Your task to perform on an android device: Search for "duracell triple a" on costco.com, select the first entry, add it to the cart, then select checkout. Image 0: 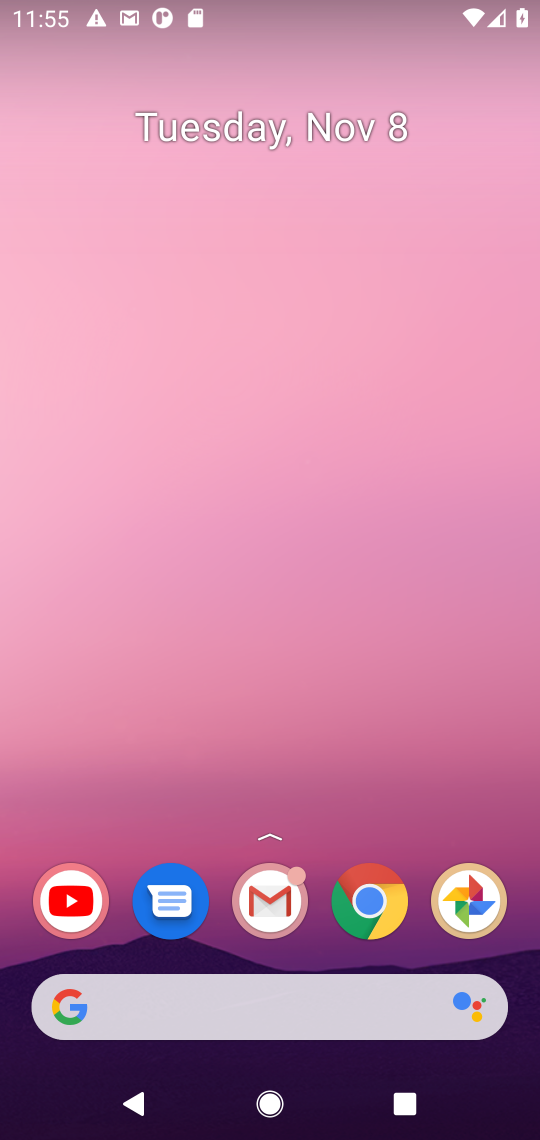
Step 0: click (358, 895)
Your task to perform on an android device: Search for "duracell triple a" on costco.com, select the first entry, add it to the cart, then select checkout. Image 1: 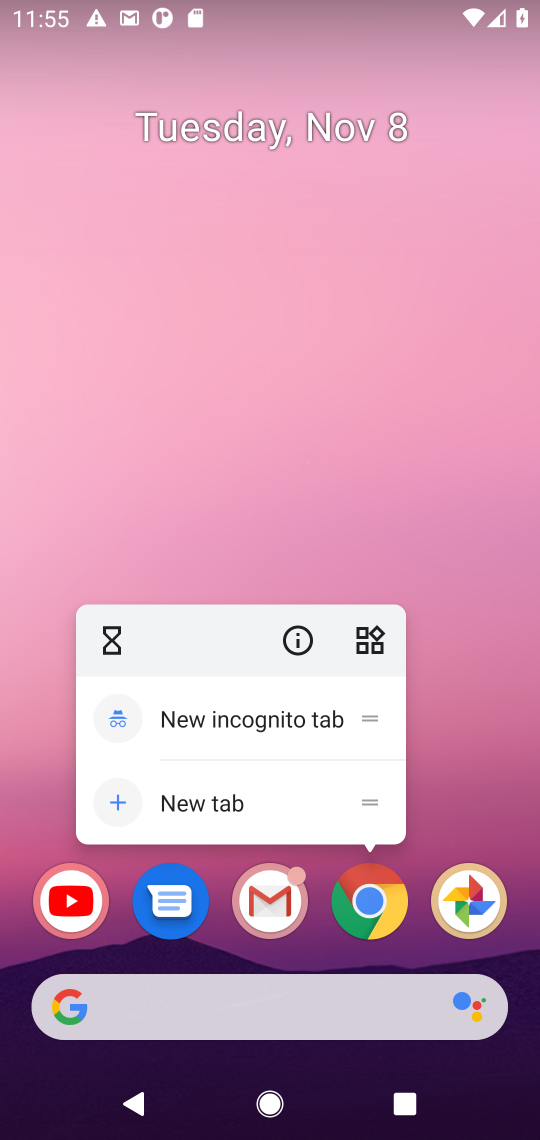
Step 1: click (377, 895)
Your task to perform on an android device: Search for "duracell triple a" on costco.com, select the first entry, add it to the cart, then select checkout. Image 2: 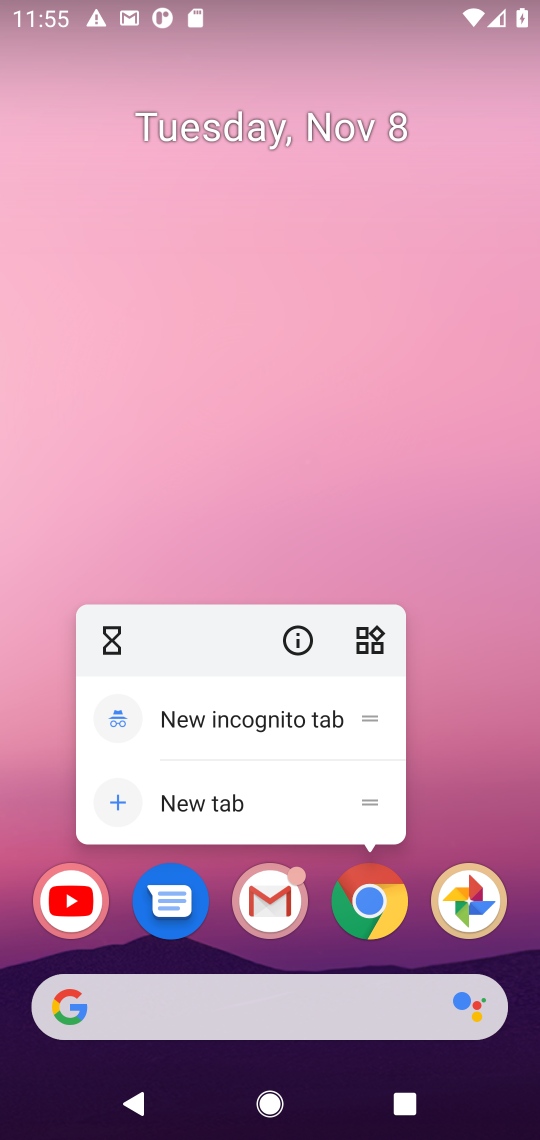
Step 2: click (377, 895)
Your task to perform on an android device: Search for "duracell triple a" on costco.com, select the first entry, add it to the cart, then select checkout. Image 3: 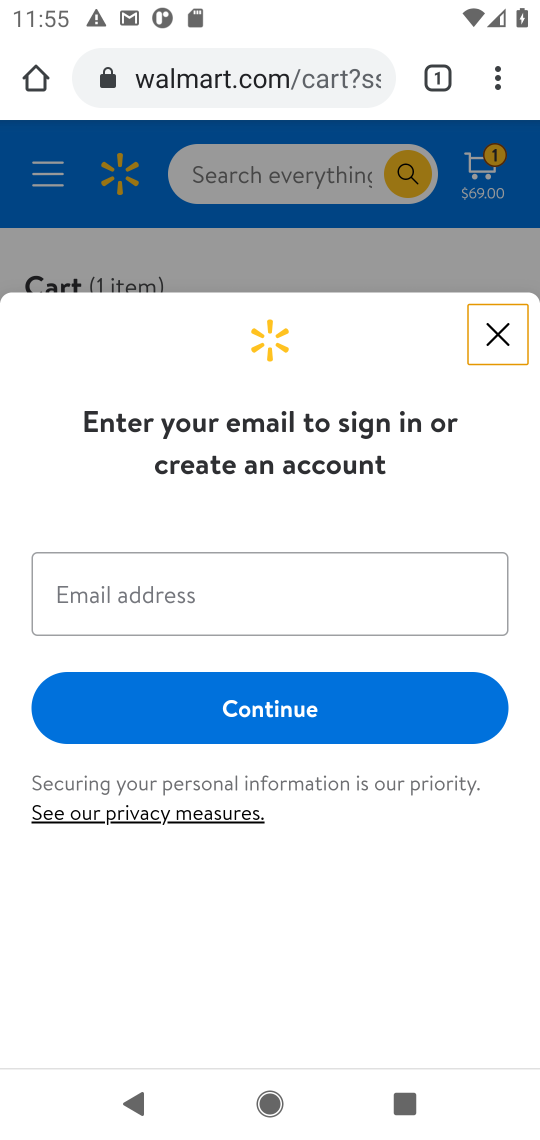
Step 3: click (326, 69)
Your task to perform on an android device: Search for "duracell triple a" on costco.com, select the first entry, add it to the cart, then select checkout. Image 4: 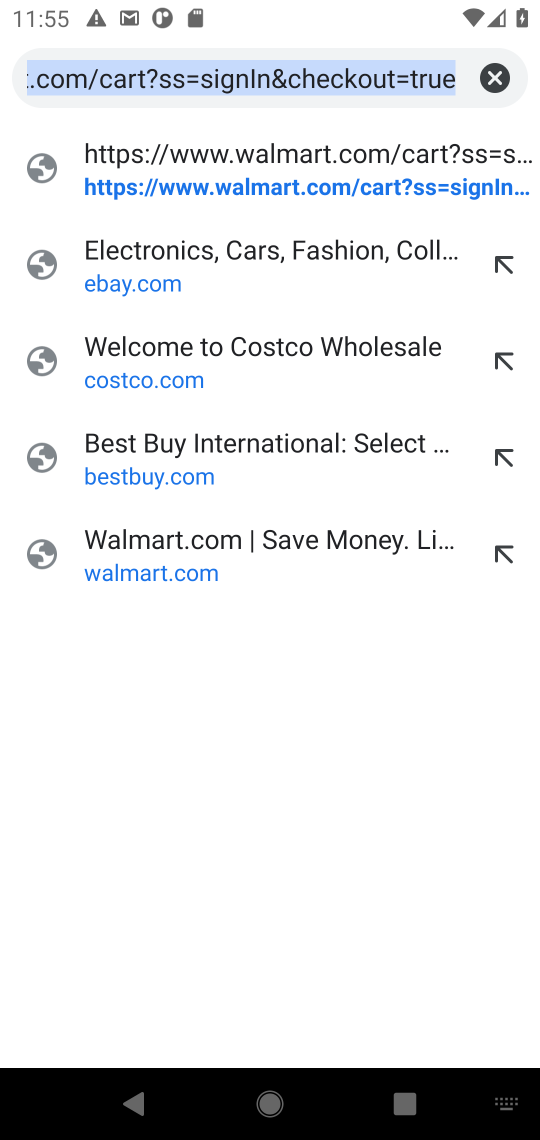
Step 4: click (192, 368)
Your task to perform on an android device: Search for "duracell triple a" on costco.com, select the first entry, add it to the cart, then select checkout. Image 5: 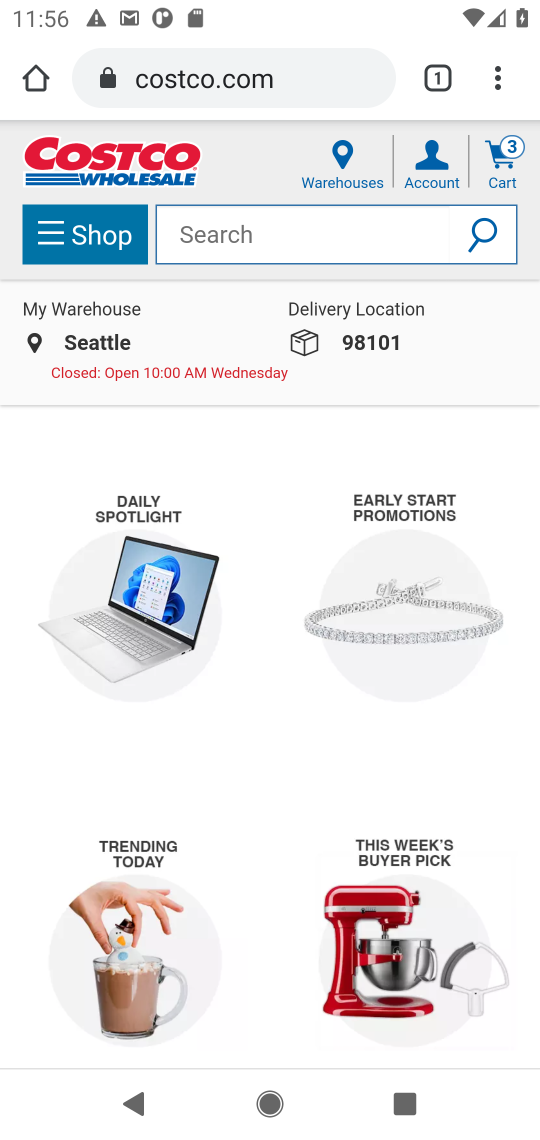
Step 5: click (263, 223)
Your task to perform on an android device: Search for "duracell triple a" on costco.com, select the first entry, add it to the cart, then select checkout. Image 6: 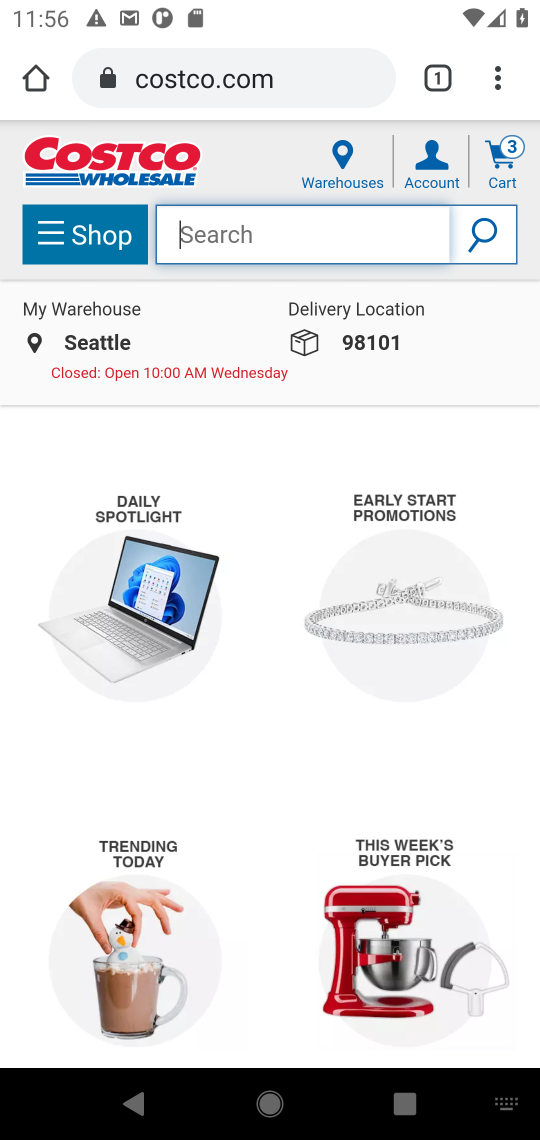
Step 6: type "duracell triple a"
Your task to perform on an android device: Search for "duracell triple a" on costco.com, select the first entry, add it to the cart, then select checkout. Image 7: 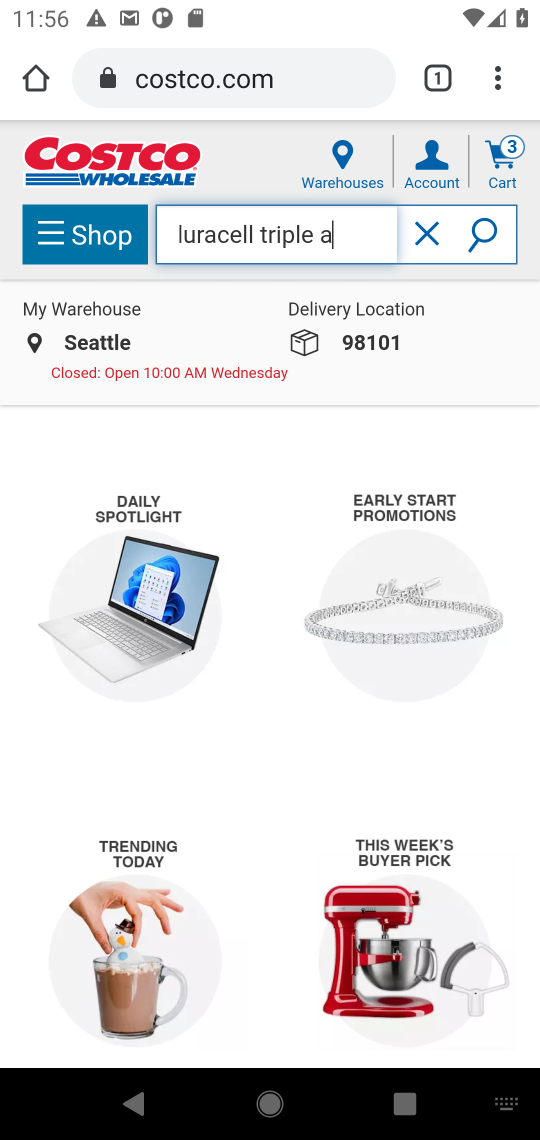
Step 7: press enter
Your task to perform on an android device: Search for "duracell triple a" on costco.com, select the first entry, add it to the cart, then select checkout. Image 8: 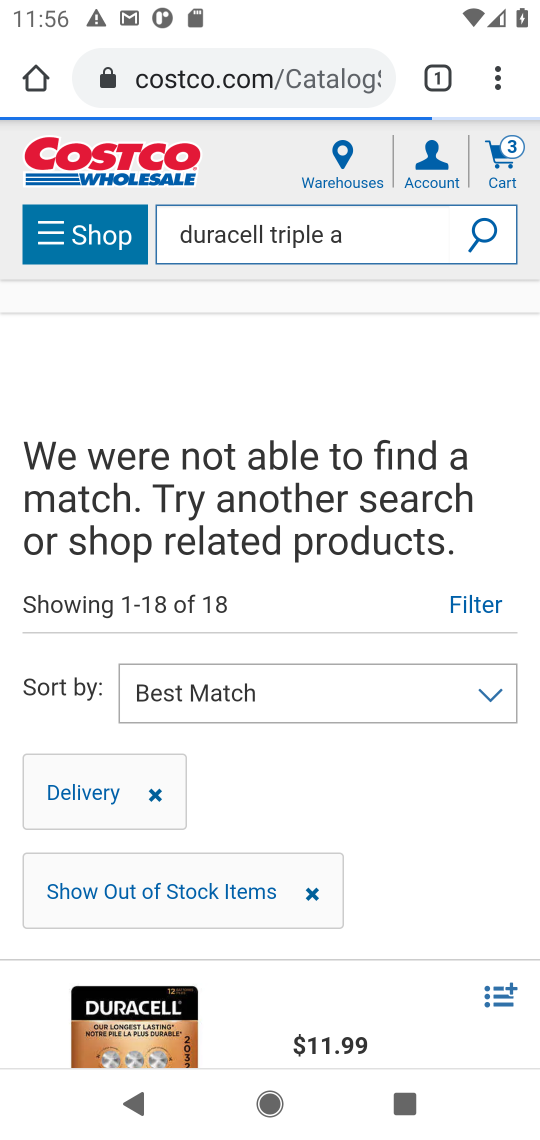
Step 8: task complete